Your task to perform on an android device: Show me popular games on the Play Store Image 0: 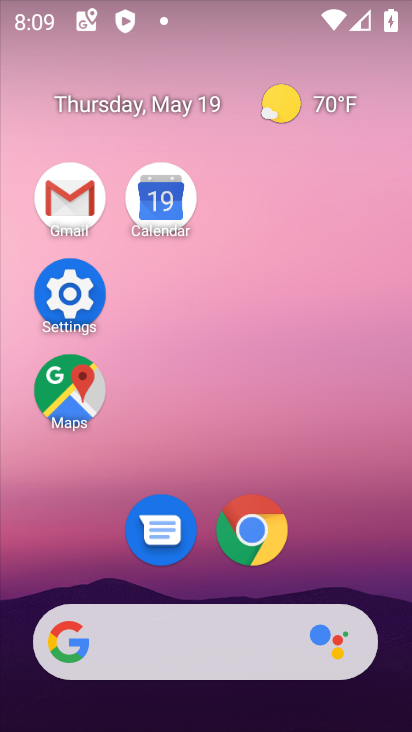
Step 0: drag from (322, 545) to (300, 181)
Your task to perform on an android device: Show me popular games on the Play Store Image 1: 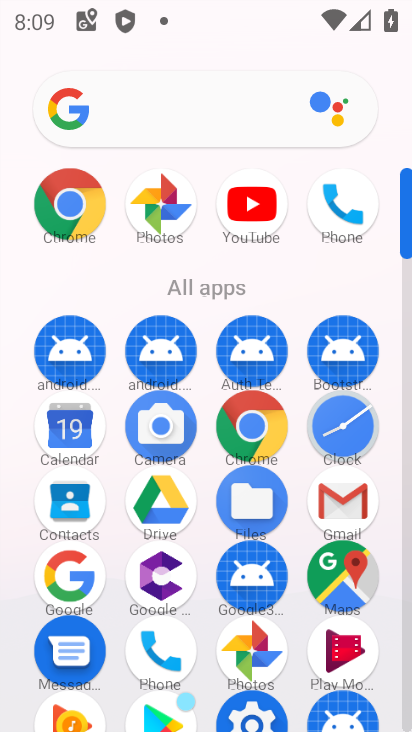
Step 1: drag from (247, 526) to (236, 162)
Your task to perform on an android device: Show me popular games on the Play Store Image 2: 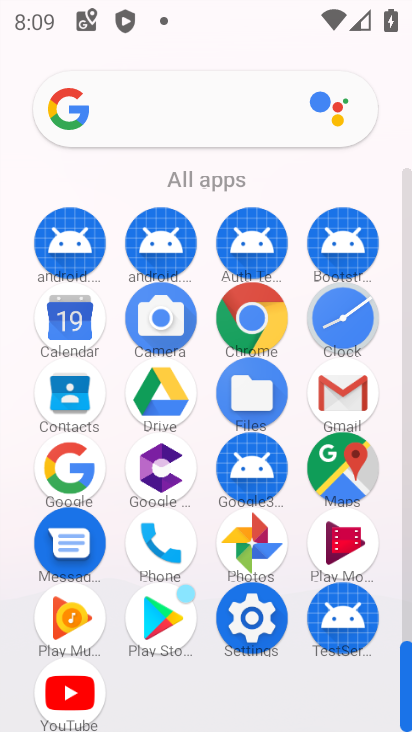
Step 2: click (163, 642)
Your task to perform on an android device: Show me popular games on the Play Store Image 3: 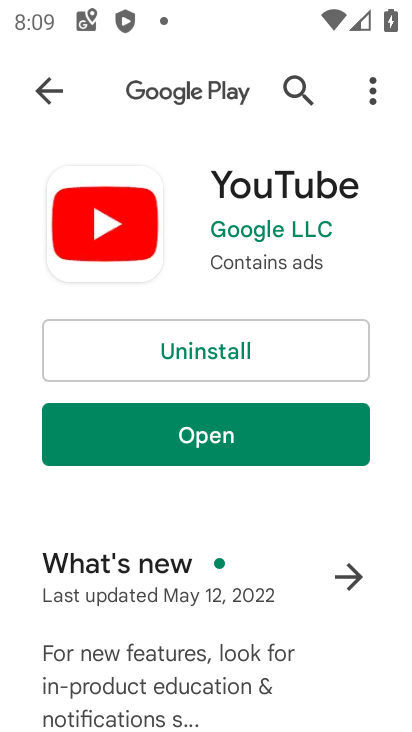
Step 3: click (45, 104)
Your task to perform on an android device: Show me popular games on the Play Store Image 4: 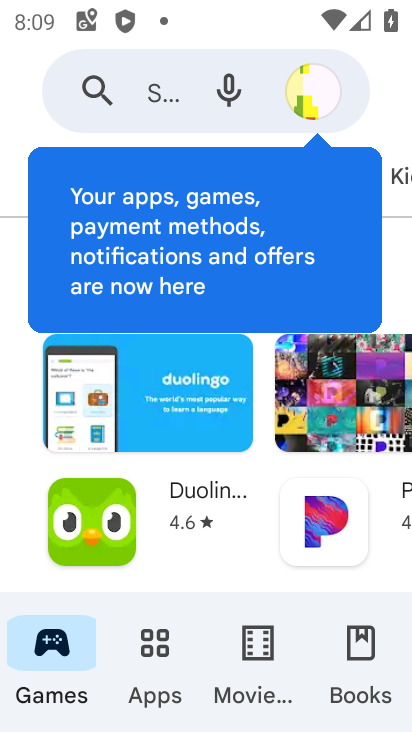
Step 4: drag from (314, 481) to (333, 344)
Your task to perform on an android device: Show me popular games on the Play Store Image 5: 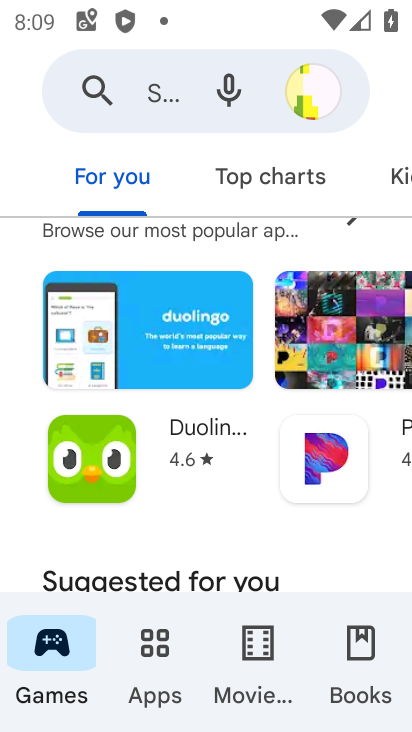
Step 5: drag from (285, 543) to (305, 182)
Your task to perform on an android device: Show me popular games on the Play Store Image 6: 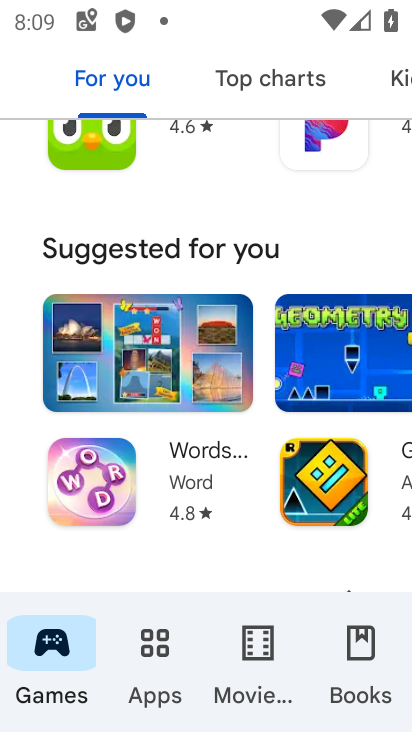
Step 6: drag from (309, 442) to (294, 176)
Your task to perform on an android device: Show me popular games on the Play Store Image 7: 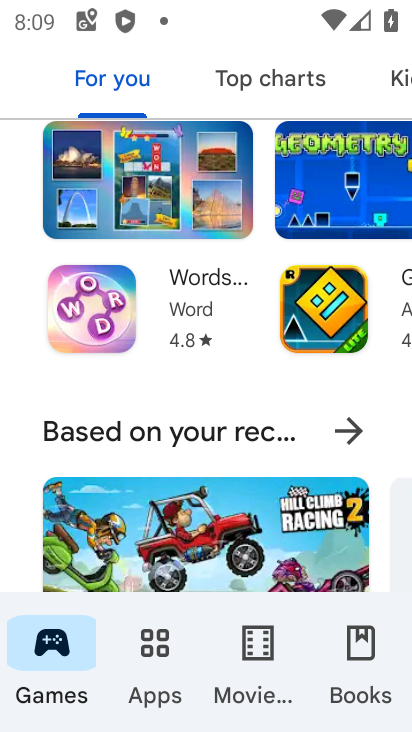
Step 7: drag from (279, 462) to (280, 162)
Your task to perform on an android device: Show me popular games on the Play Store Image 8: 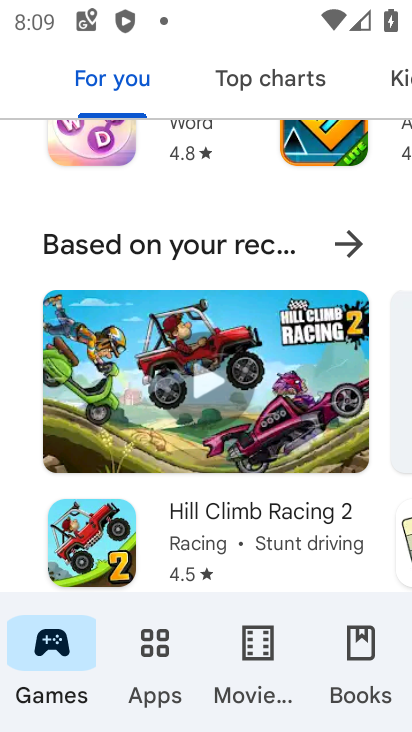
Step 8: drag from (264, 426) to (290, 98)
Your task to perform on an android device: Show me popular games on the Play Store Image 9: 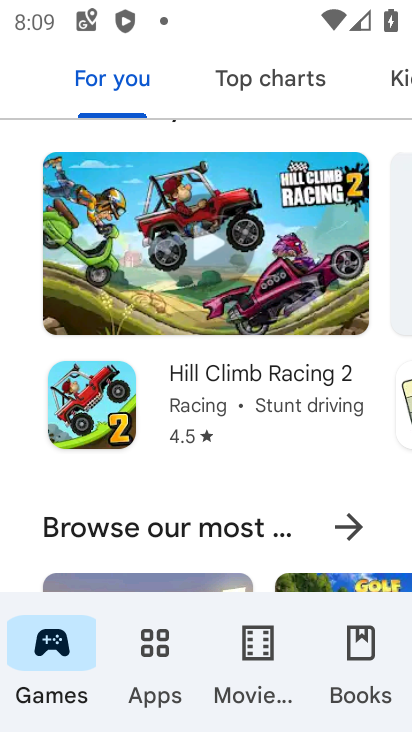
Step 9: click (306, 530)
Your task to perform on an android device: Show me popular games on the Play Store Image 10: 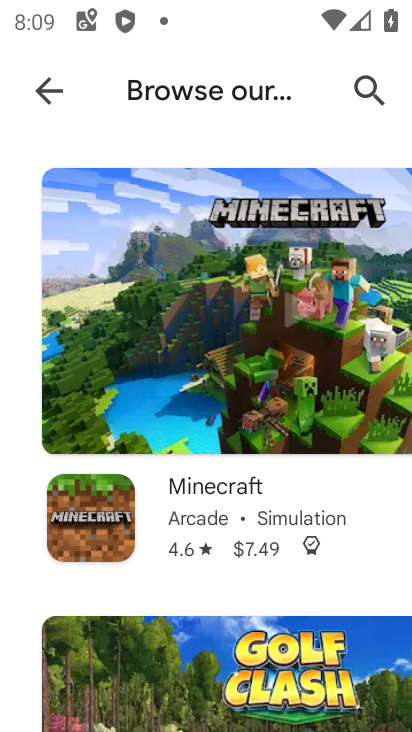
Step 10: task complete